Your task to perform on an android device: Open internet settings Image 0: 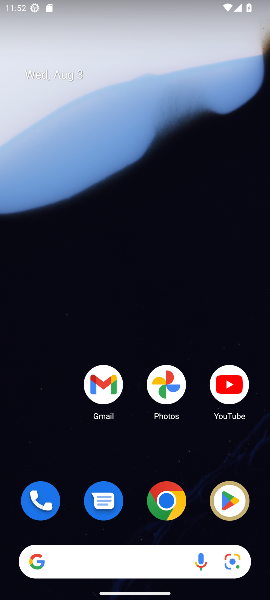
Step 0: drag from (140, 459) to (63, 3)
Your task to perform on an android device: Open internet settings Image 1: 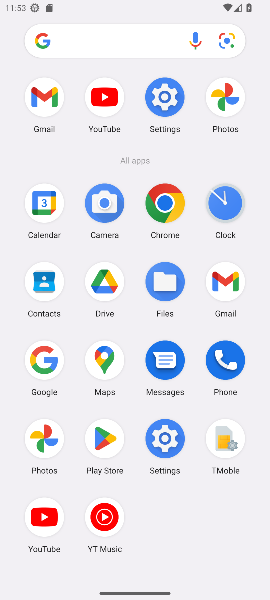
Step 1: click (165, 435)
Your task to perform on an android device: Open internet settings Image 2: 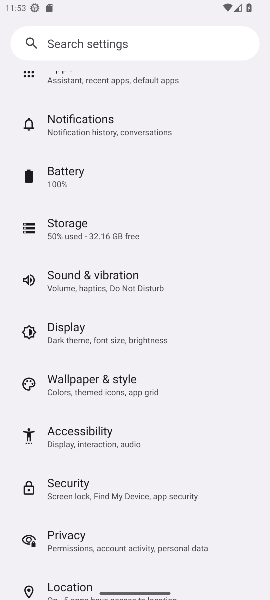
Step 2: drag from (103, 155) to (167, 432)
Your task to perform on an android device: Open internet settings Image 3: 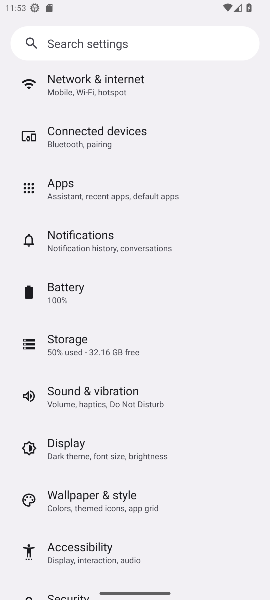
Step 3: click (104, 84)
Your task to perform on an android device: Open internet settings Image 4: 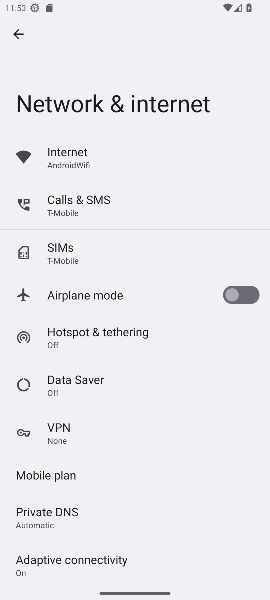
Step 4: click (96, 162)
Your task to perform on an android device: Open internet settings Image 5: 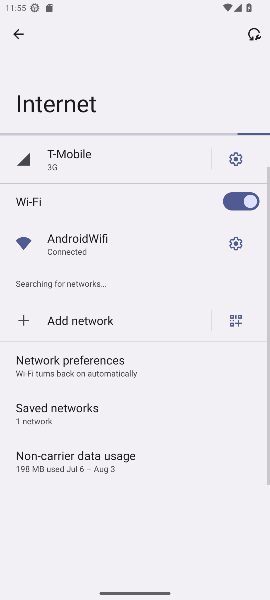
Step 5: task complete